Your task to perform on an android device: Search for sushi restaurants on Maps Image 0: 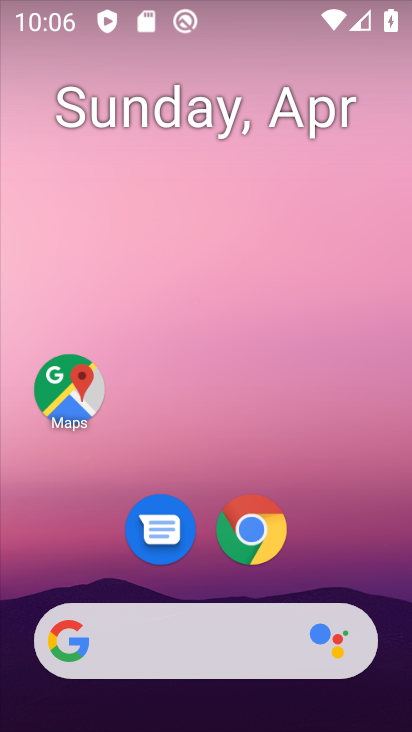
Step 0: click (92, 389)
Your task to perform on an android device: Search for sushi restaurants on Maps Image 1: 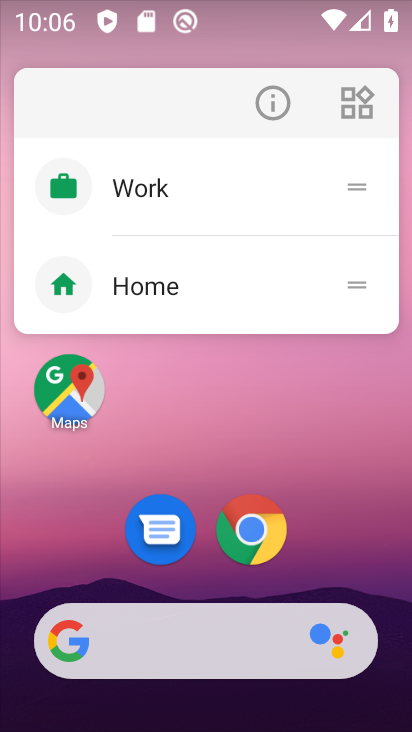
Step 1: click (51, 408)
Your task to perform on an android device: Search for sushi restaurants on Maps Image 2: 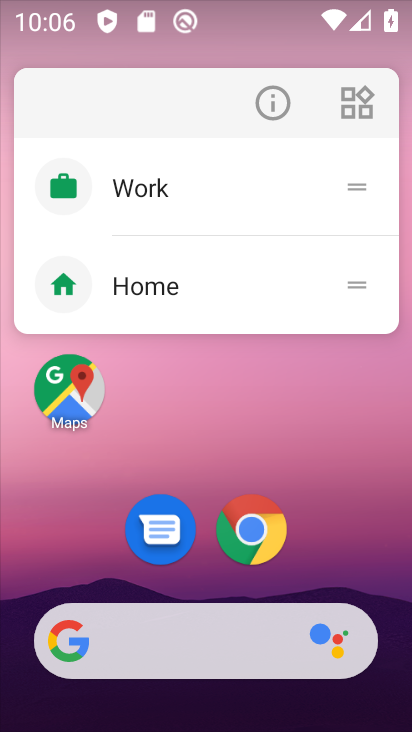
Step 2: click (51, 408)
Your task to perform on an android device: Search for sushi restaurants on Maps Image 3: 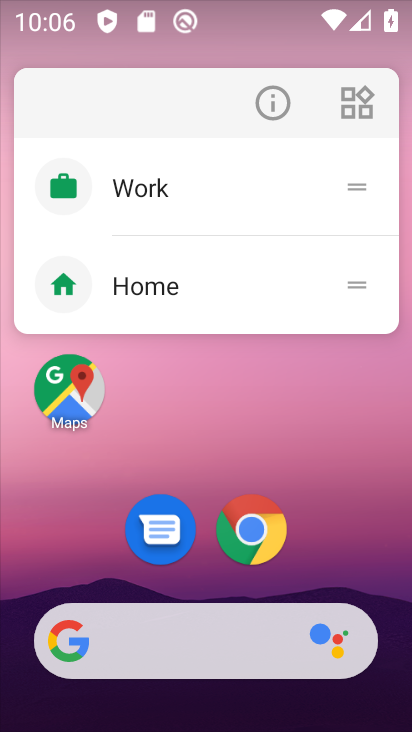
Step 3: click (79, 369)
Your task to perform on an android device: Search for sushi restaurants on Maps Image 4: 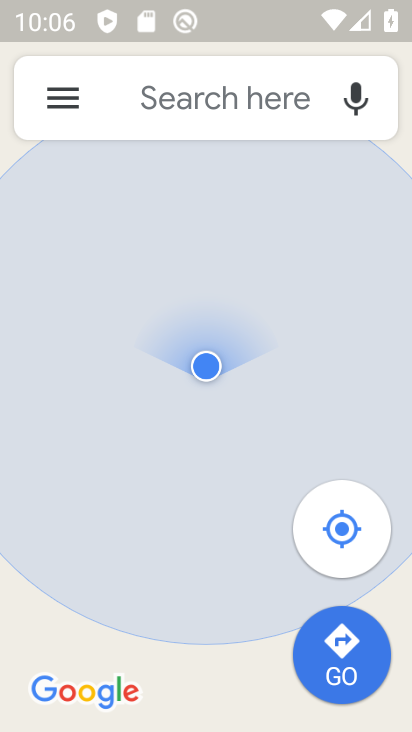
Step 4: click (226, 93)
Your task to perform on an android device: Search for sushi restaurants on Maps Image 5: 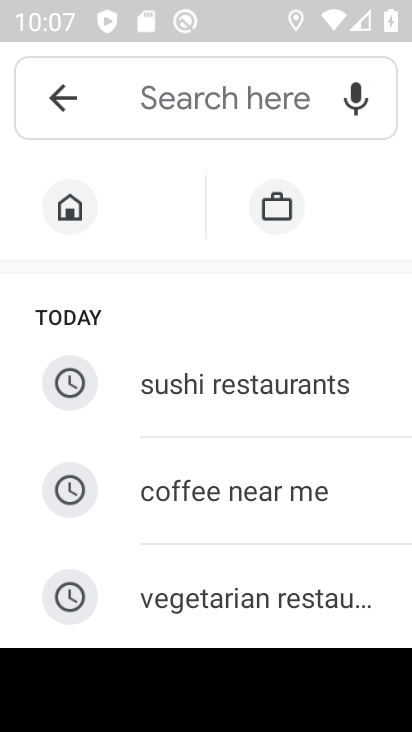
Step 5: type "s"
Your task to perform on an android device: Search for sushi restaurants on Maps Image 6: 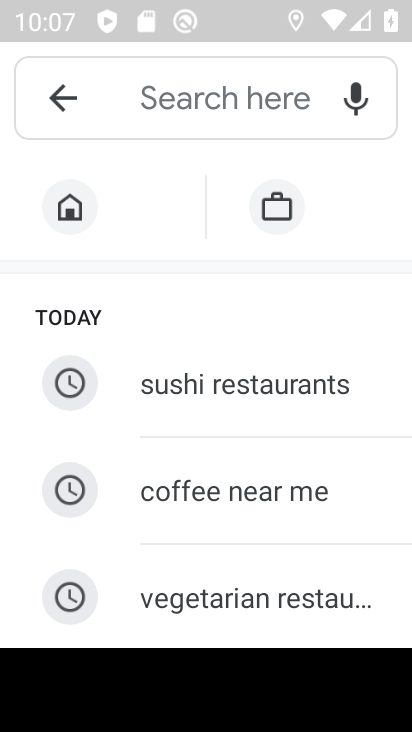
Step 6: click (203, 380)
Your task to perform on an android device: Search for sushi restaurants on Maps Image 7: 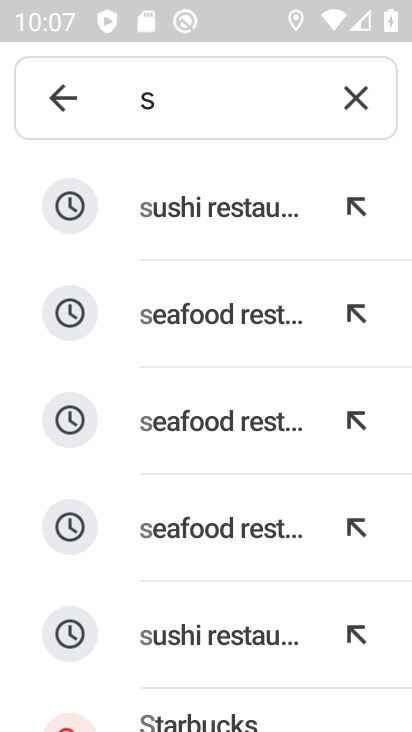
Step 7: click (256, 211)
Your task to perform on an android device: Search for sushi restaurants on Maps Image 8: 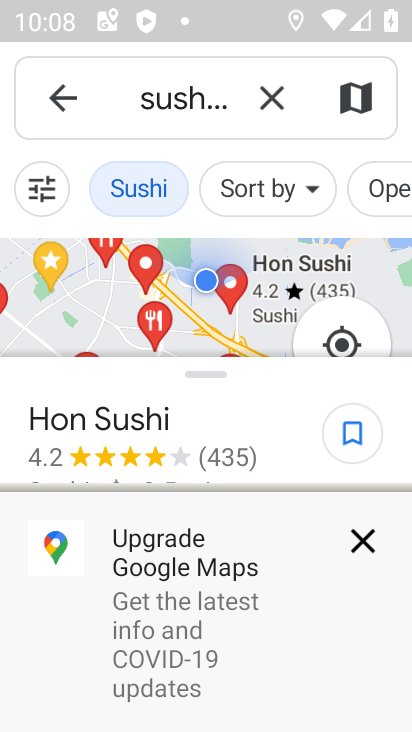
Step 8: task complete